Your task to perform on an android device: Open the web browser Image 0: 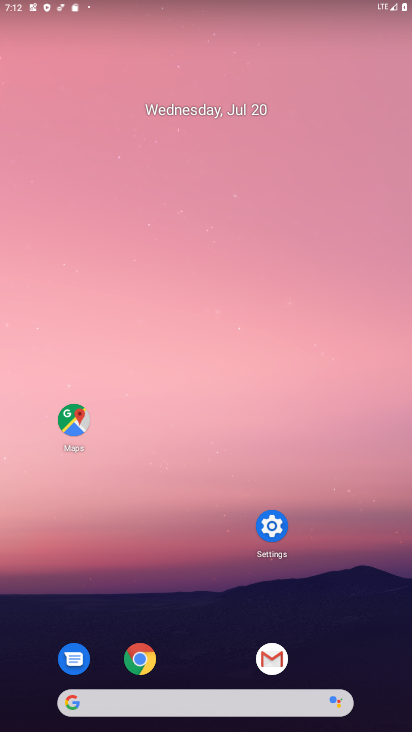
Step 0: click (136, 645)
Your task to perform on an android device: Open the web browser Image 1: 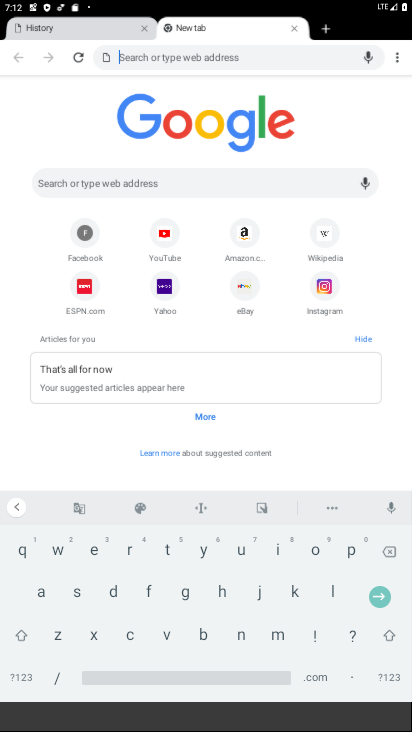
Step 1: click (148, 52)
Your task to perform on an android device: Open the web browser Image 2: 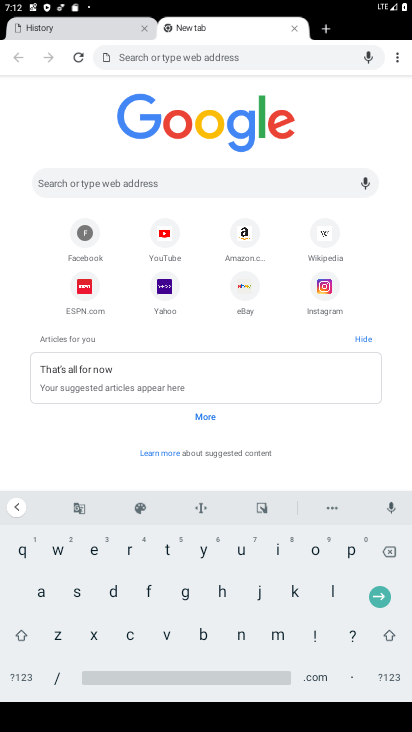
Step 2: task complete